Your task to perform on an android device: find snoozed emails in the gmail app Image 0: 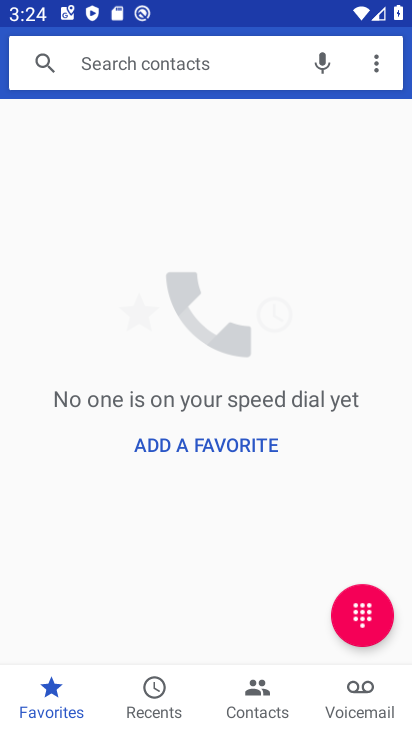
Step 0: press back button
Your task to perform on an android device: find snoozed emails in the gmail app Image 1: 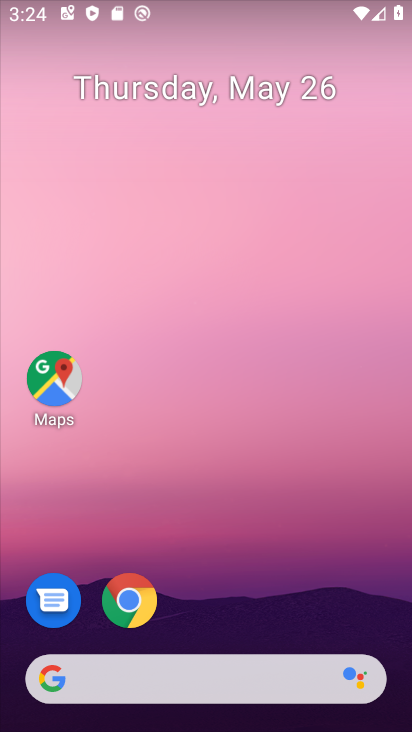
Step 1: drag from (233, 559) to (153, 4)
Your task to perform on an android device: find snoozed emails in the gmail app Image 2: 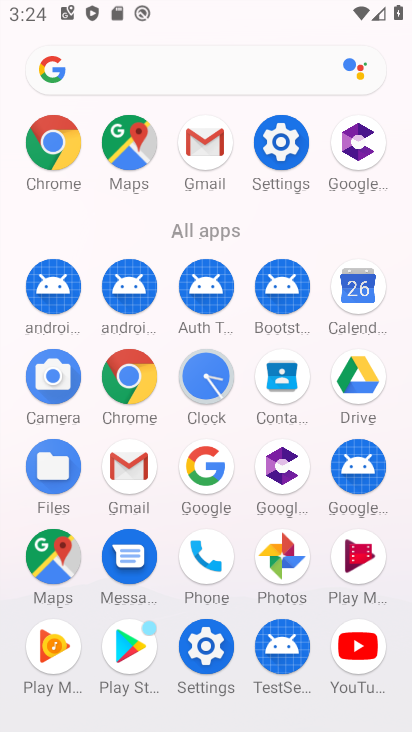
Step 2: drag from (5, 594) to (10, 217)
Your task to perform on an android device: find snoozed emails in the gmail app Image 3: 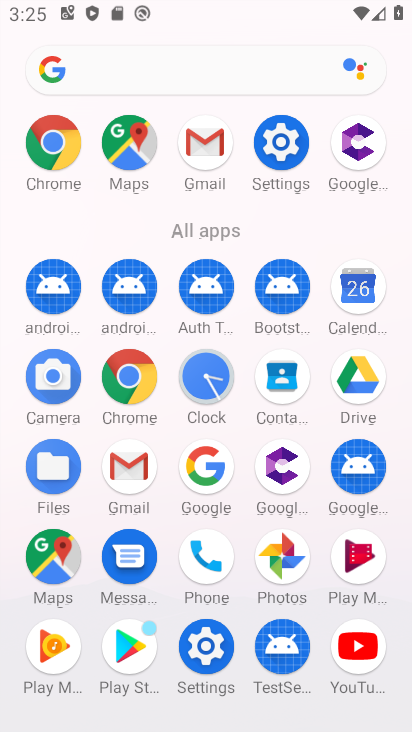
Step 3: click (130, 461)
Your task to perform on an android device: find snoozed emails in the gmail app Image 4: 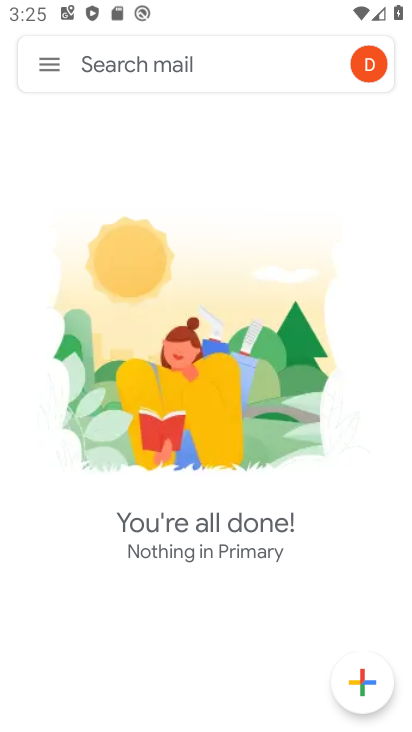
Step 4: click (57, 53)
Your task to perform on an android device: find snoozed emails in the gmail app Image 5: 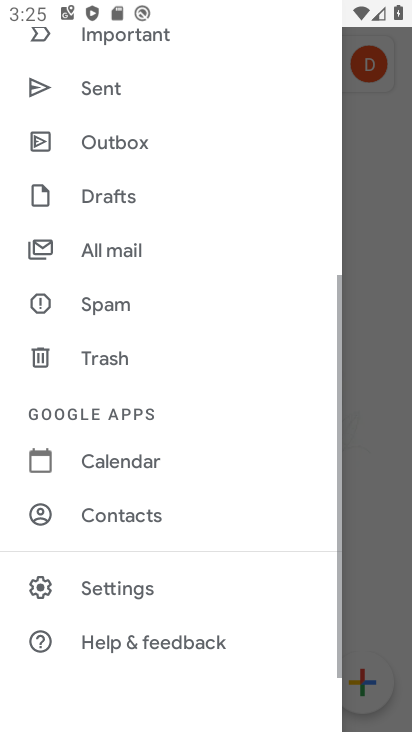
Step 5: drag from (202, 145) to (219, 609)
Your task to perform on an android device: find snoozed emails in the gmail app Image 6: 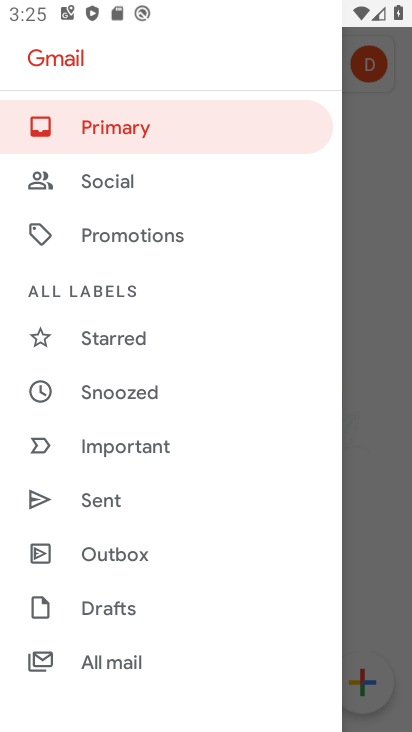
Step 6: click (120, 388)
Your task to perform on an android device: find snoozed emails in the gmail app Image 7: 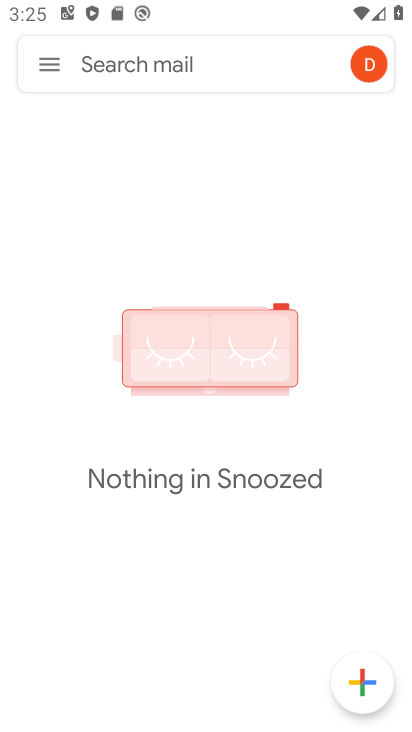
Step 7: task complete